Your task to perform on an android device: check google app version Image 0: 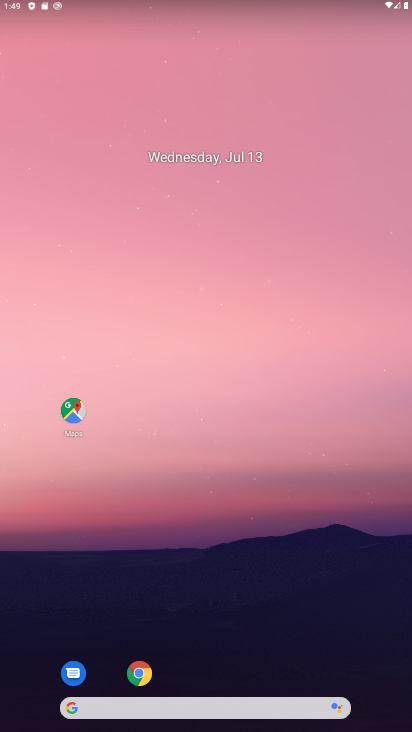
Step 0: click (94, 709)
Your task to perform on an android device: check google app version Image 1: 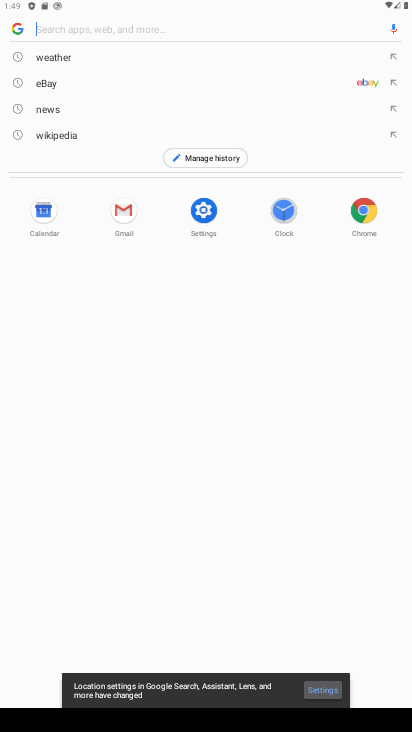
Step 1: click (14, 24)
Your task to perform on an android device: check google app version Image 2: 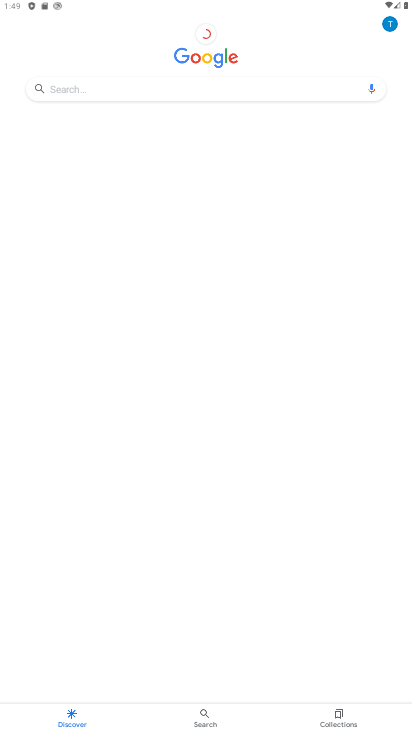
Step 2: click (390, 22)
Your task to perform on an android device: check google app version Image 3: 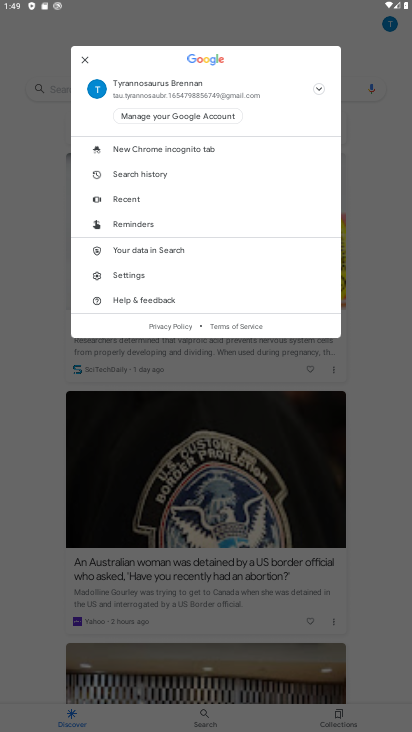
Step 3: click (128, 274)
Your task to perform on an android device: check google app version Image 4: 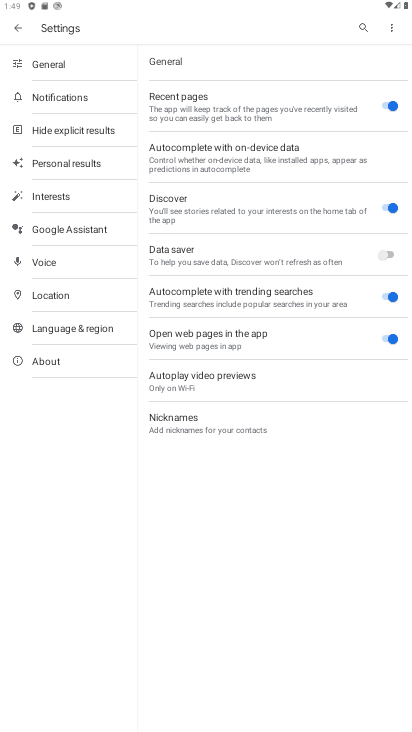
Step 4: click (50, 364)
Your task to perform on an android device: check google app version Image 5: 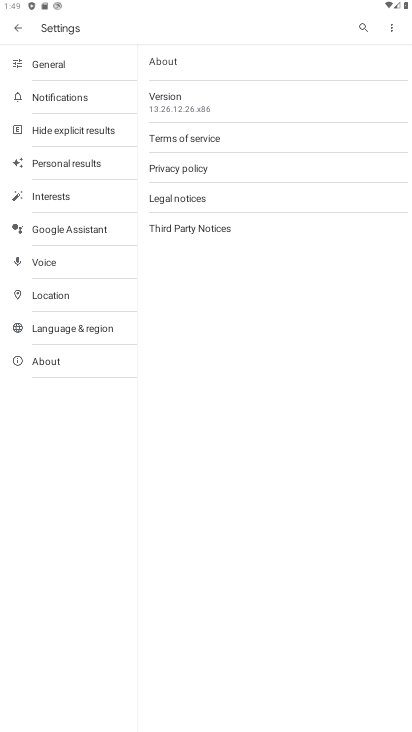
Step 5: task complete